Your task to perform on an android device: empty trash in the gmail app Image 0: 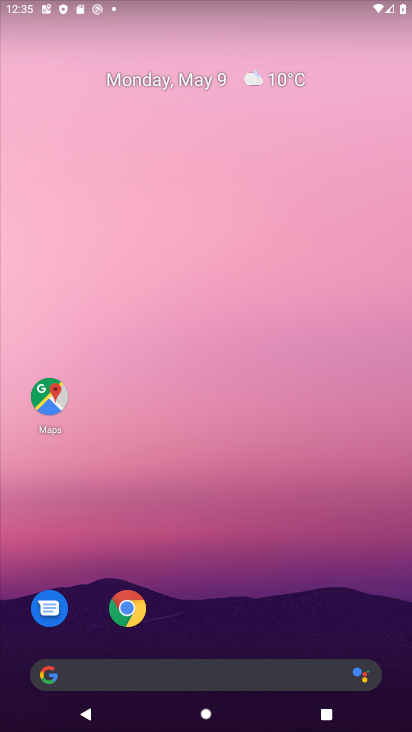
Step 0: task complete